Your task to perform on an android device: stop showing notifications on the lock screen Image 0: 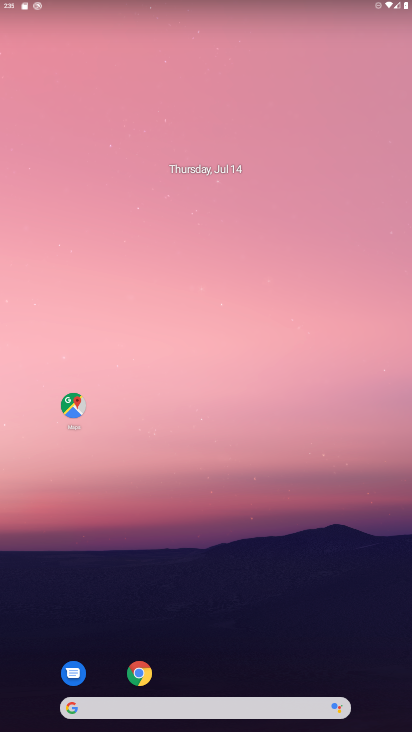
Step 0: drag from (182, 709) to (290, 225)
Your task to perform on an android device: stop showing notifications on the lock screen Image 1: 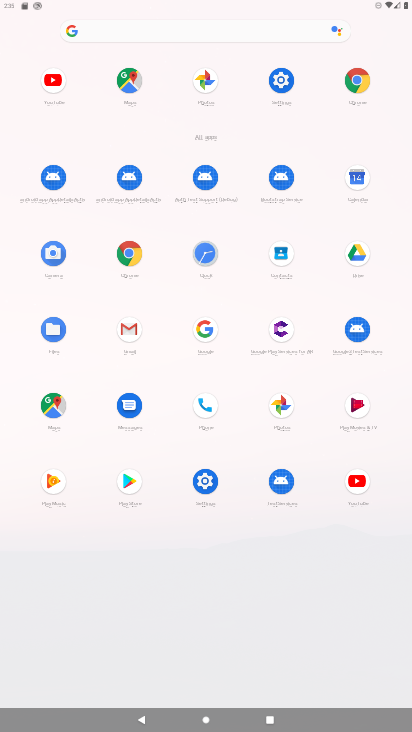
Step 1: click (201, 487)
Your task to perform on an android device: stop showing notifications on the lock screen Image 2: 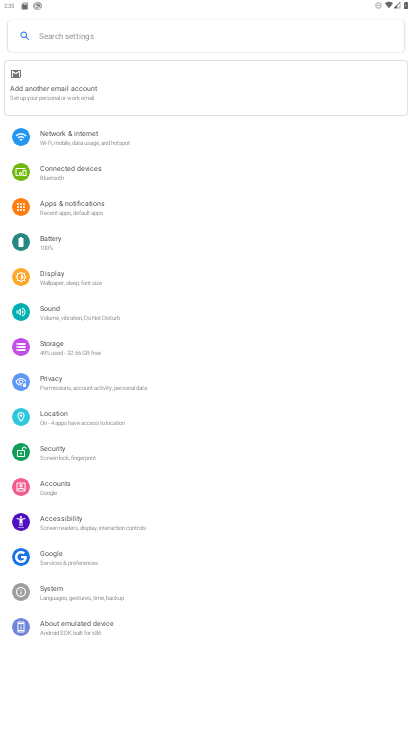
Step 2: click (157, 212)
Your task to perform on an android device: stop showing notifications on the lock screen Image 3: 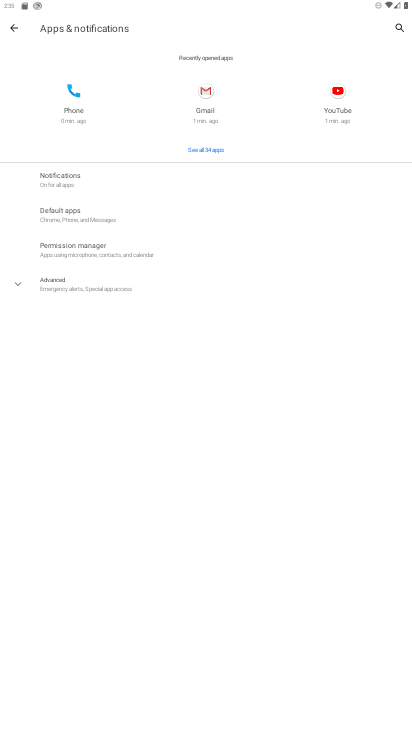
Step 3: click (128, 181)
Your task to perform on an android device: stop showing notifications on the lock screen Image 4: 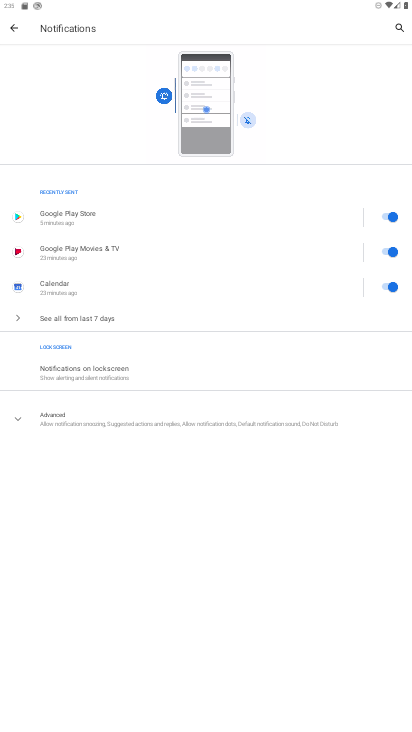
Step 4: click (120, 366)
Your task to perform on an android device: stop showing notifications on the lock screen Image 5: 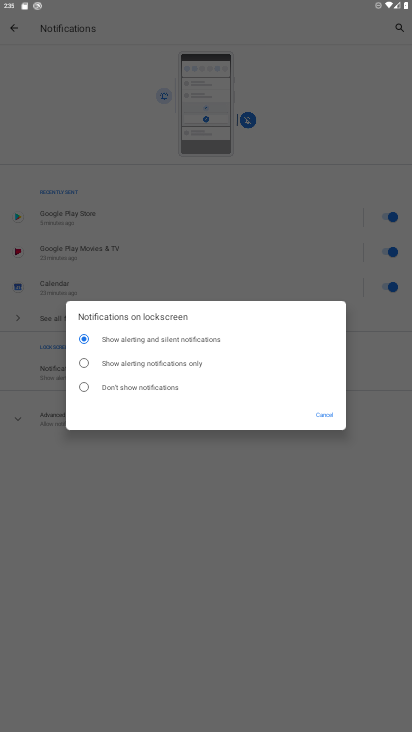
Step 5: click (128, 386)
Your task to perform on an android device: stop showing notifications on the lock screen Image 6: 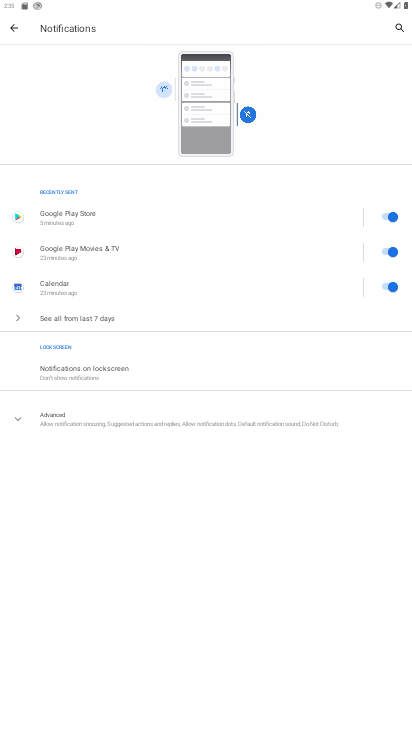
Step 6: task complete